Your task to perform on an android device: Show me recent news Image 0: 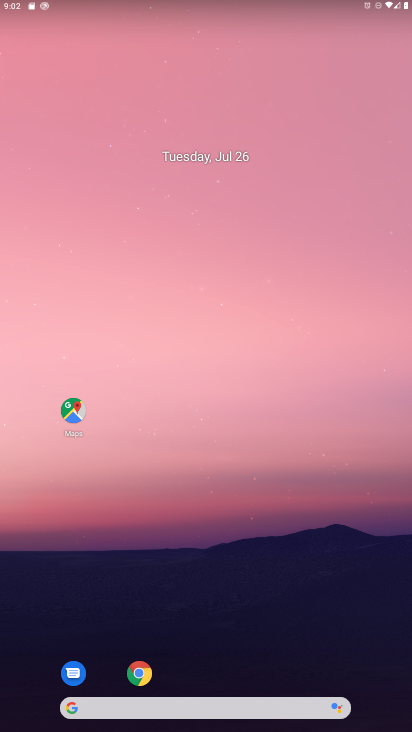
Step 0: drag from (384, 620) to (149, 19)
Your task to perform on an android device: Show me recent news Image 1: 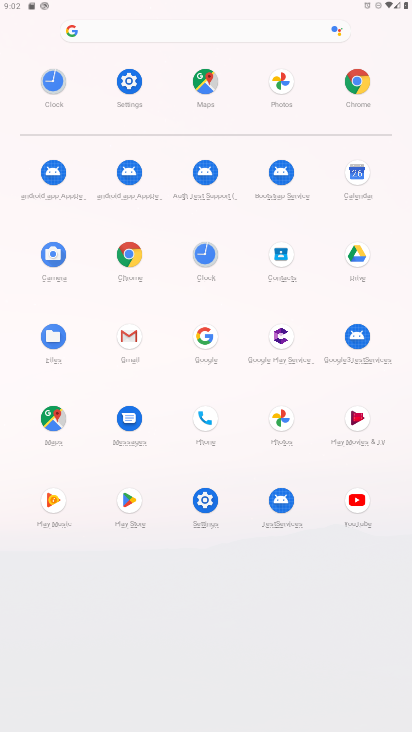
Step 1: click (201, 333)
Your task to perform on an android device: Show me recent news Image 2: 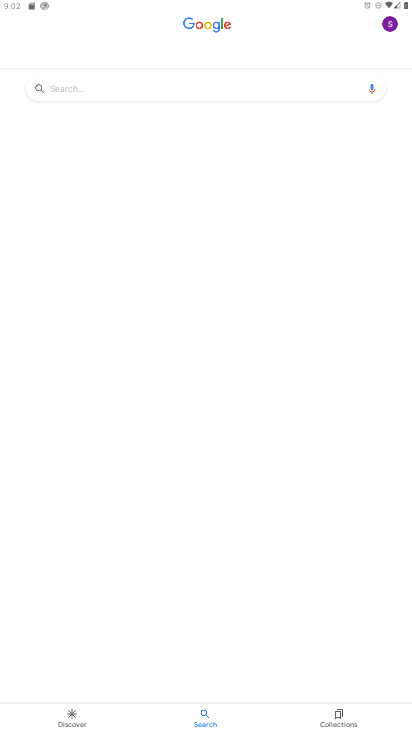
Step 2: click (133, 90)
Your task to perform on an android device: Show me recent news Image 3: 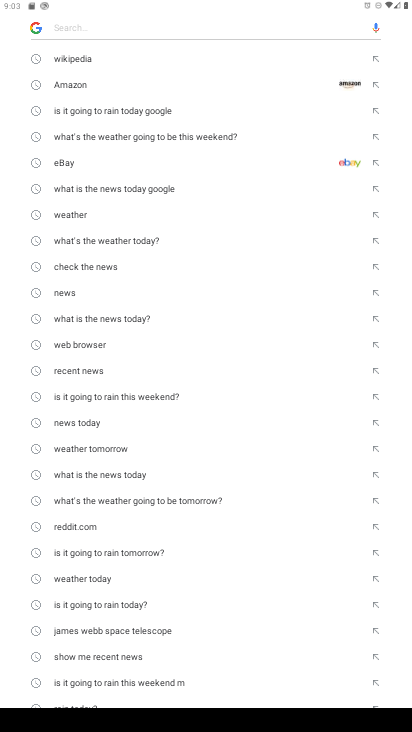
Step 3: type "recent news"
Your task to perform on an android device: Show me recent news Image 4: 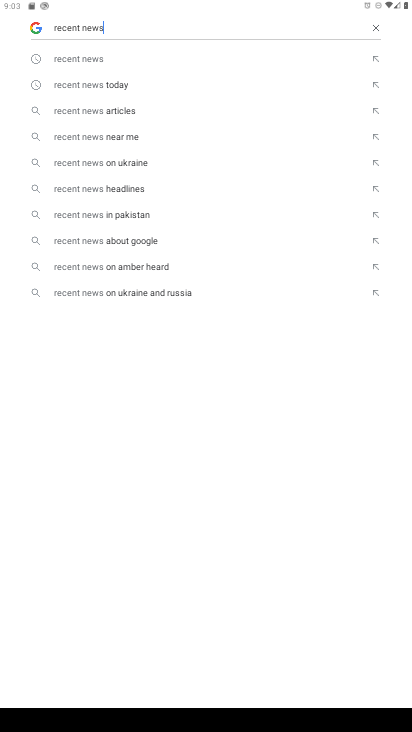
Step 4: click (85, 54)
Your task to perform on an android device: Show me recent news Image 5: 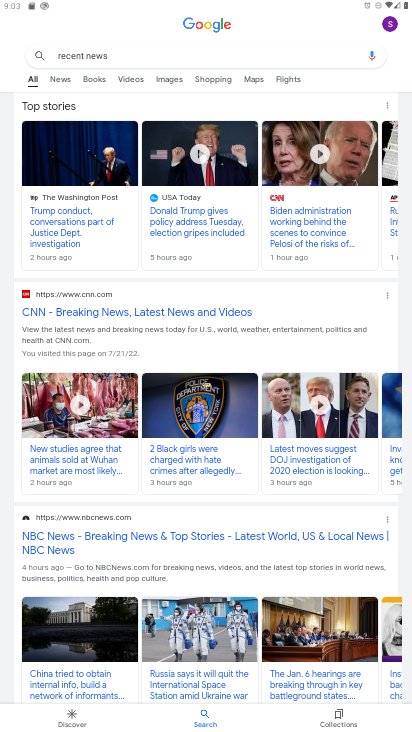
Step 5: task complete